Your task to perform on an android device: open app "Spotify" (install if not already installed) and enter user name: "infallible@icloud.com" and password: "implored" Image 0: 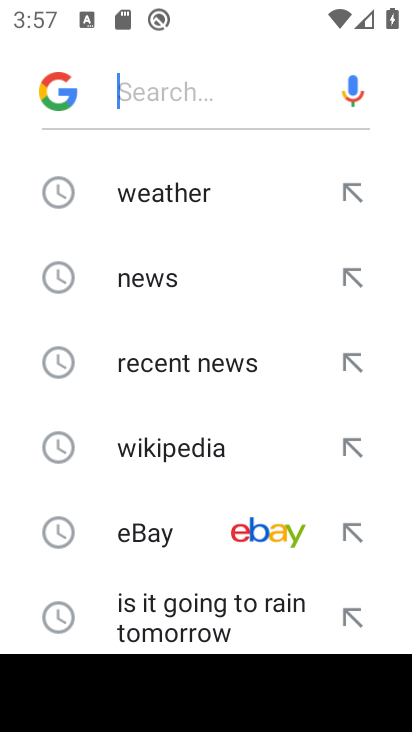
Step 0: press home button
Your task to perform on an android device: open app "Spotify" (install if not already installed) and enter user name: "infallible@icloud.com" and password: "implored" Image 1: 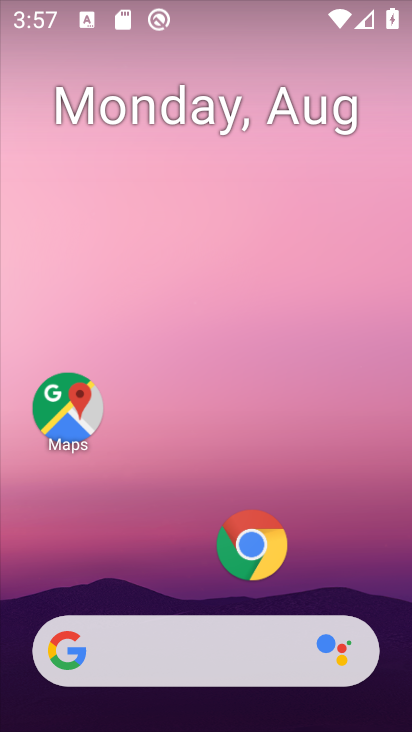
Step 1: drag from (136, 547) to (228, 8)
Your task to perform on an android device: open app "Spotify" (install if not already installed) and enter user name: "infallible@icloud.com" and password: "implored" Image 2: 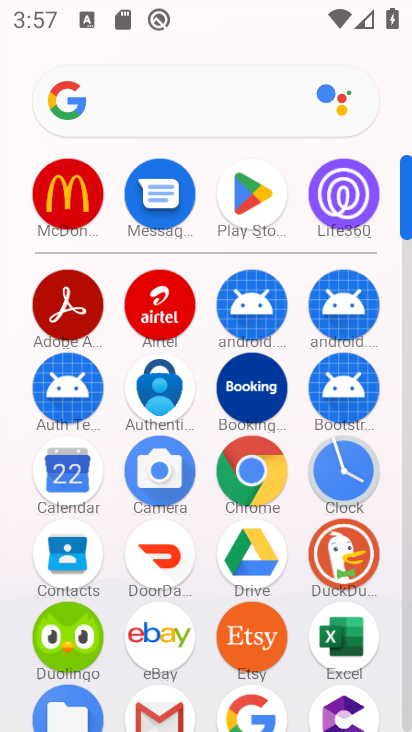
Step 2: click (232, 194)
Your task to perform on an android device: open app "Spotify" (install if not already installed) and enter user name: "infallible@icloud.com" and password: "implored" Image 3: 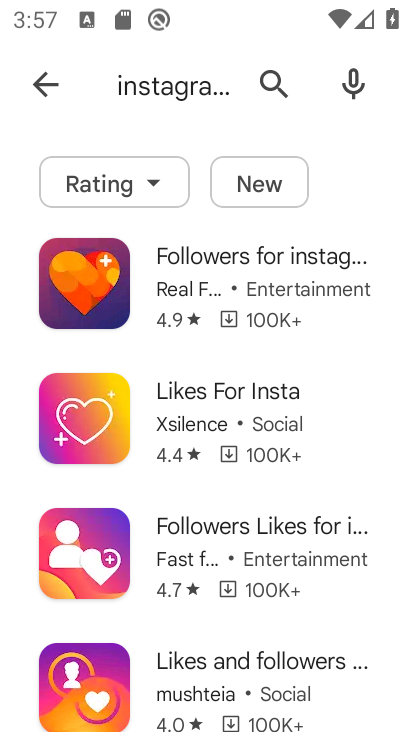
Step 3: click (285, 78)
Your task to perform on an android device: open app "Spotify" (install if not already installed) and enter user name: "infallible@icloud.com" and password: "implored" Image 4: 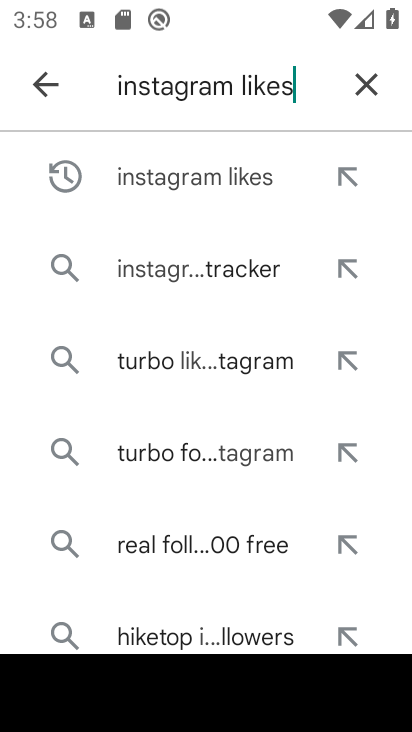
Step 4: click (359, 77)
Your task to perform on an android device: open app "Spotify" (install if not already installed) and enter user name: "infallible@icloud.com" and password: "implored" Image 5: 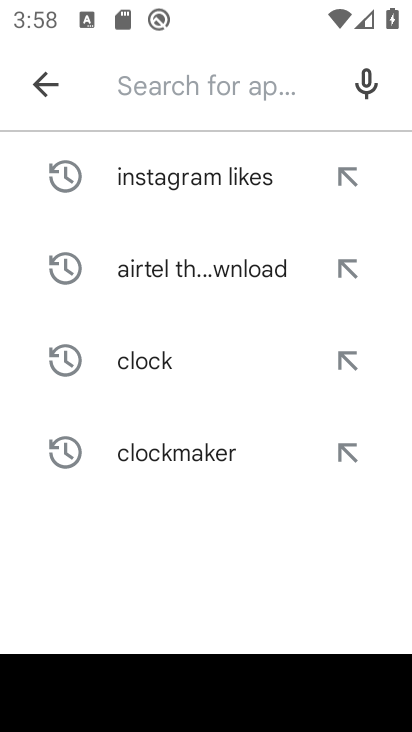
Step 5: click (203, 71)
Your task to perform on an android device: open app "Spotify" (install if not already installed) and enter user name: "infallible@icloud.com" and password: "implored" Image 6: 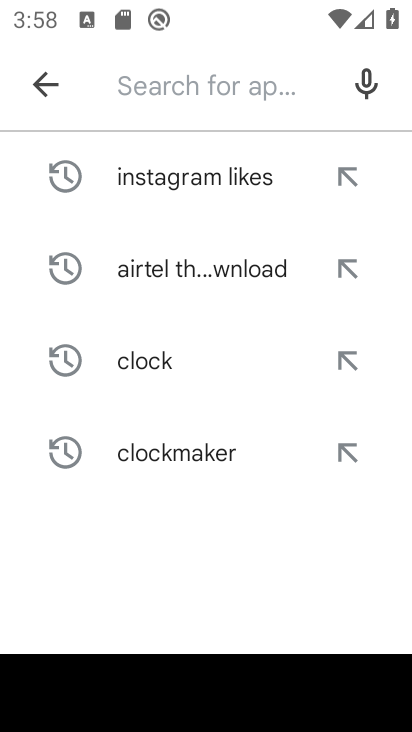
Step 6: type "Spotify"
Your task to perform on an android device: open app "Spotify" (install if not already installed) and enter user name: "infallible@icloud.com" and password: "implored" Image 7: 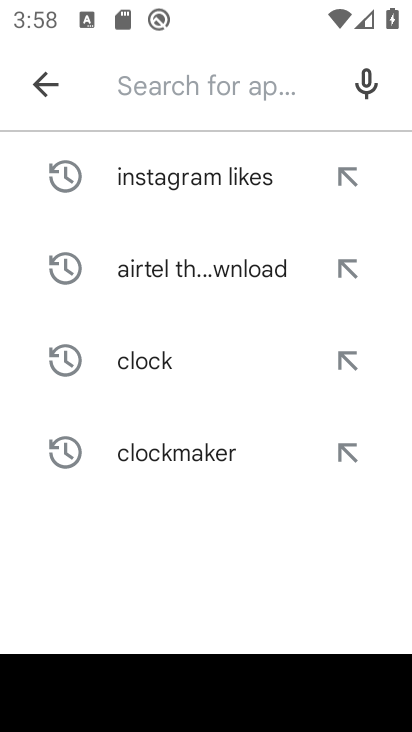
Step 7: click (114, 572)
Your task to perform on an android device: open app "Spotify" (install if not already installed) and enter user name: "infallible@icloud.com" and password: "implored" Image 8: 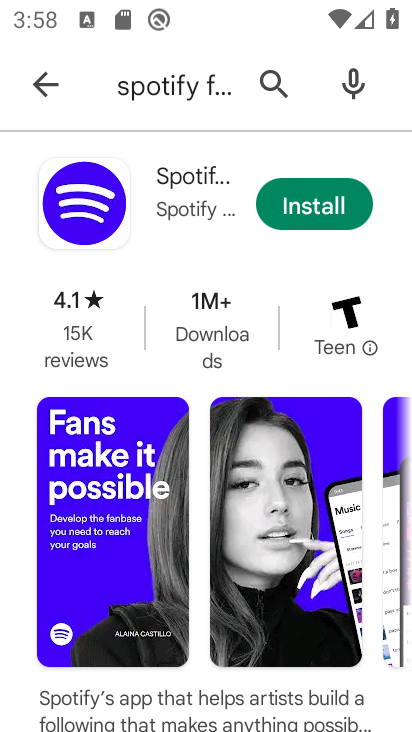
Step 8: click (265, 79)
Your task to perform on an android device: open app "Spotify" (install if not already installed) and enter user name: "infallible@icloud.com" and password: "implored" Image 9: 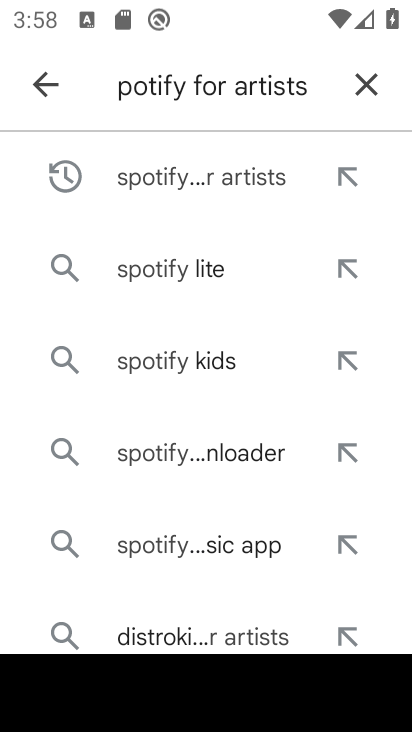
Step 9: click (367, 81)
Your task to perform on an android device: open app "Spotify" (install if not already installed) and enter user name: "infallible@icloud.com" and password: "implored" Image 10: 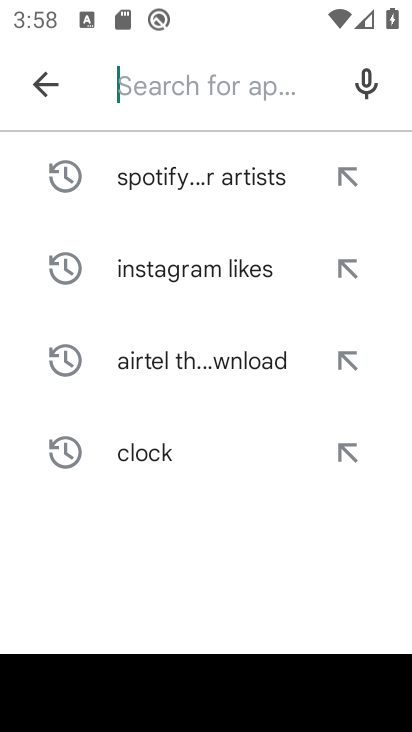
Step 10: click (183, 83)
Your task to perform on an android device: open app "Spotify" (install if not already installed) and enter user name: "infallible@icloud.com" and password: "implored" Image 11: 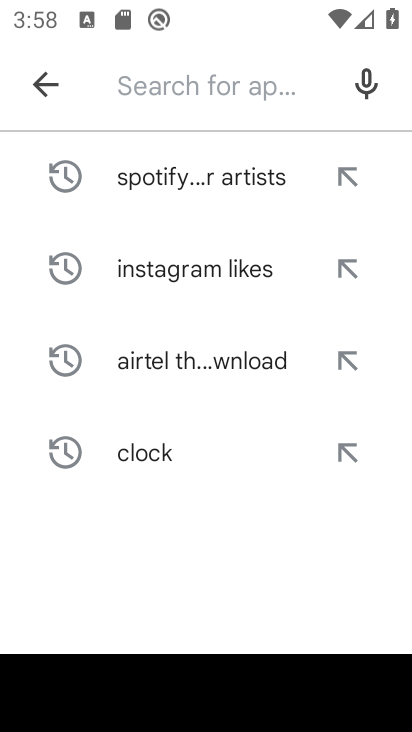
Step 11: click (183, 83)
Your task to perform on an android device: open app "Spotify" (install if not already installed) and enter user name: "infallible@icloud.com" and password: "implored" Image 12: 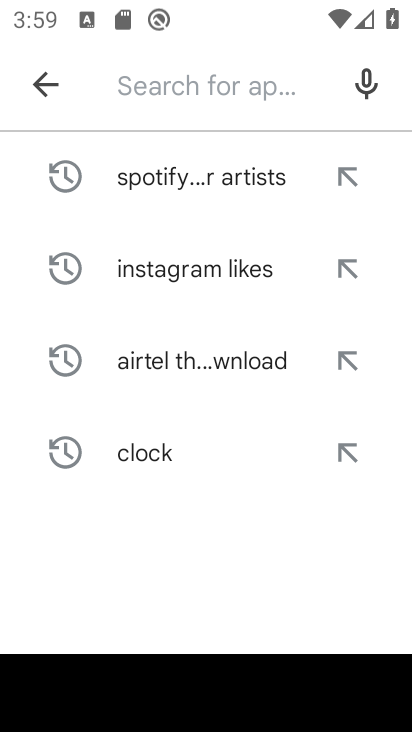
Step 12: type "Spotify"
Your task to perform on an android device: open app "Spotify" (install if not already installed) and enter user name: "infallible@icloud.com" and password: "implored" Image 13: 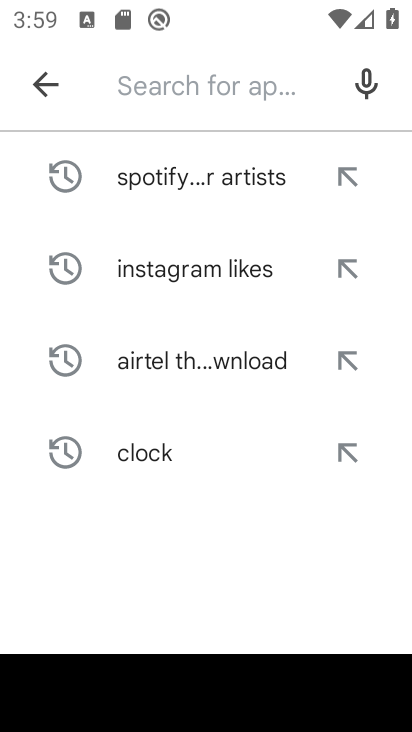
Step 13: click (176, 592)
Your task to perform on an android device: open app "Spotify" (install if not already installed) and enter user name: "infallible@icloud.com" and password: "implored" Image 14: 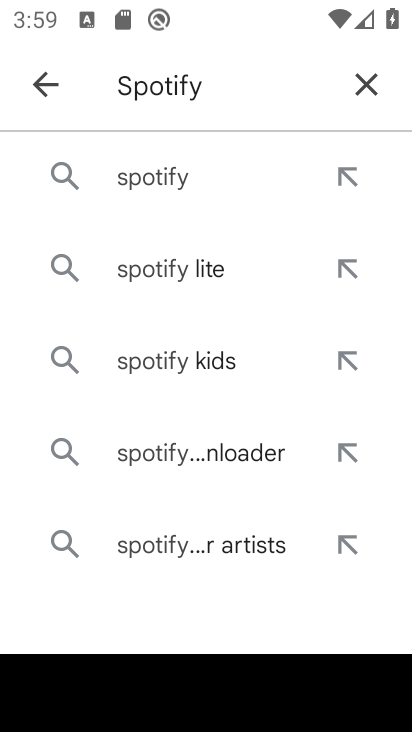
Step 14: click (180, 180)
Your task to perform on an android device: open app "Spotify" (install if not already installed) and enter user name: "infallible@icloud.com" and password: "implored" Image 15: 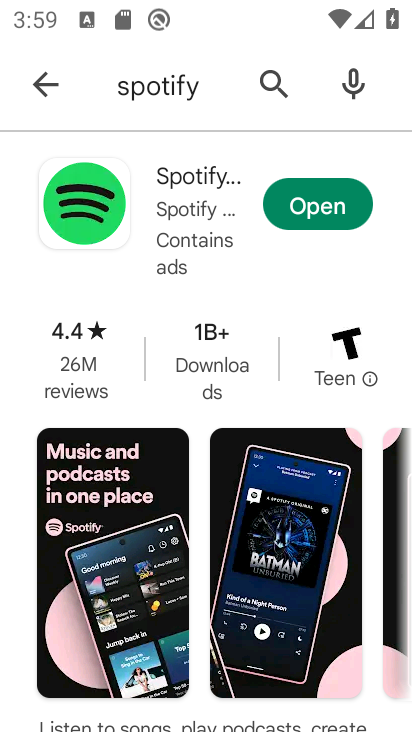
Step 15: click (319, 205)
Your task to perform on an android device: open app "Spotify" (install if not already installed) and enter user name: "infallible@icloud.com" and password: "implored" Image 16: 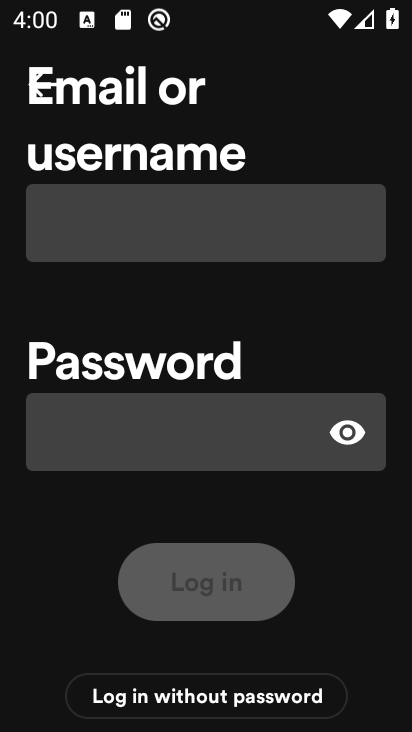
Step 16: click (171, 219)
Your task to perform on an android device: open app "Spotify" (install if not already installed) and enter user name: "infallible@icloud.com" and password: "implored" Image 17: 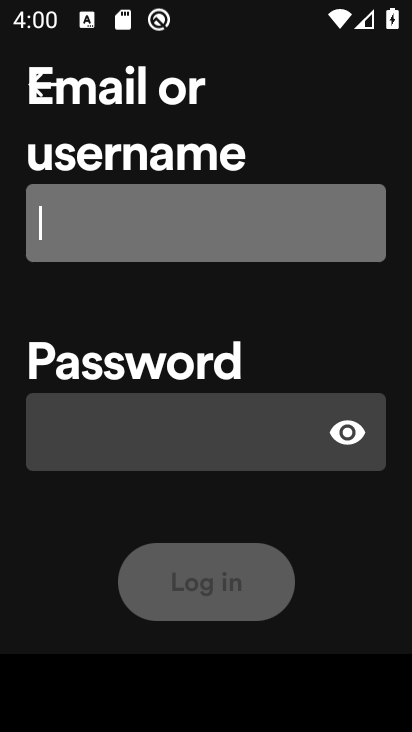
Step 17: type "infallible@icloud.com"
Your task to perform on an android device: open app "Spotify" (install if not already installed) and enter user name: "infallible@icloud.com" and password: "implored" Image 18: 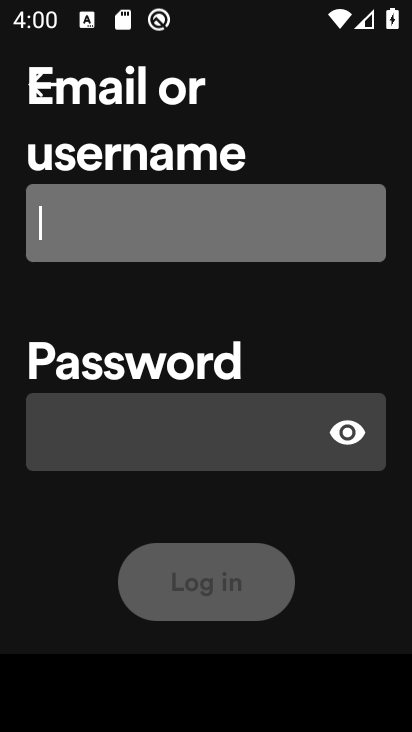
Step 18: click (38, 630)
Your task to perform on an android device: open app "Spotify" (install if not already installed) and enter user name: "infallible@icloud.com" and password: "implored" Image 19: 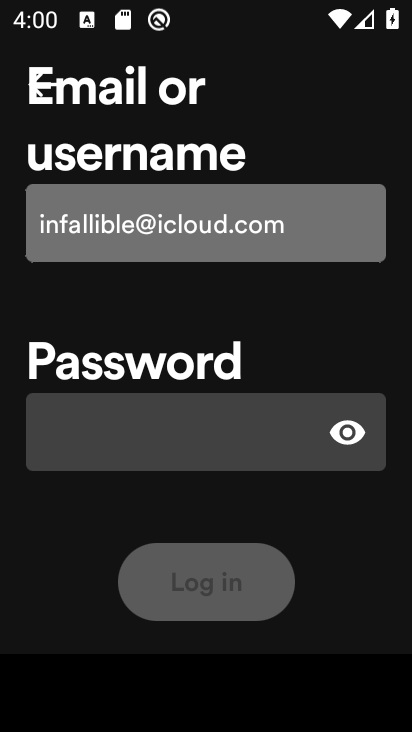
Step 19: click (149, 449)
Your task to perform on an android device: open app "Spotify" (install if not already installed) and enter user name: "infallible@icloud.com" and password: "implored" Image 20: 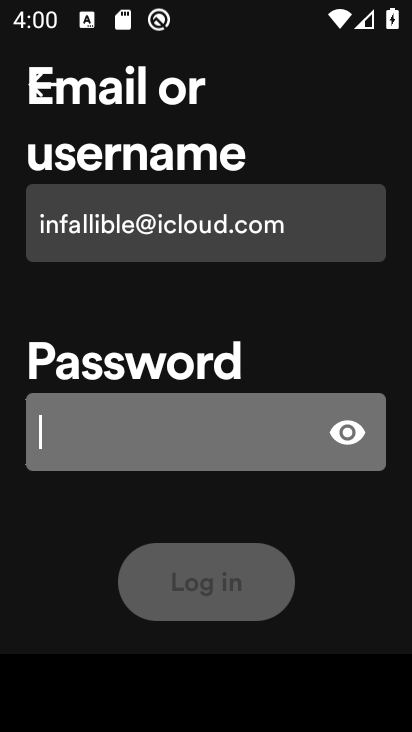
Step 20: click (207, 418)
Your task to perform on an android device: open app "Spotify" (install if not already installed) and enter user name: "infallible@icloud.com" and password: "implored" Image 21: 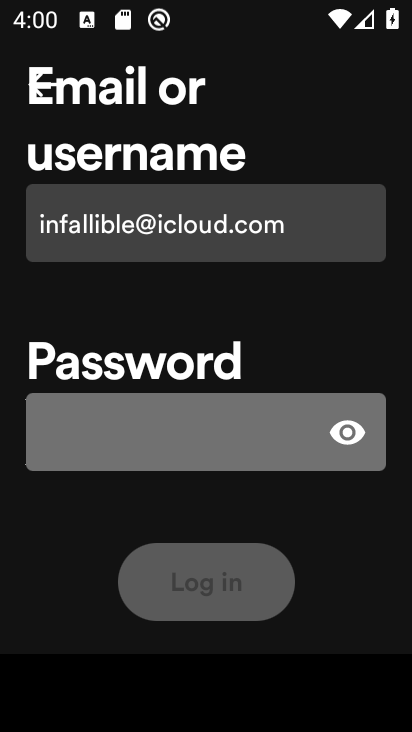
Step 21: type "implored"
Your task to perform on an android device: open app "Spotify" (install if not already installed) and enter user name: "infallible@icloud.com" and password: "implored" Image 22: 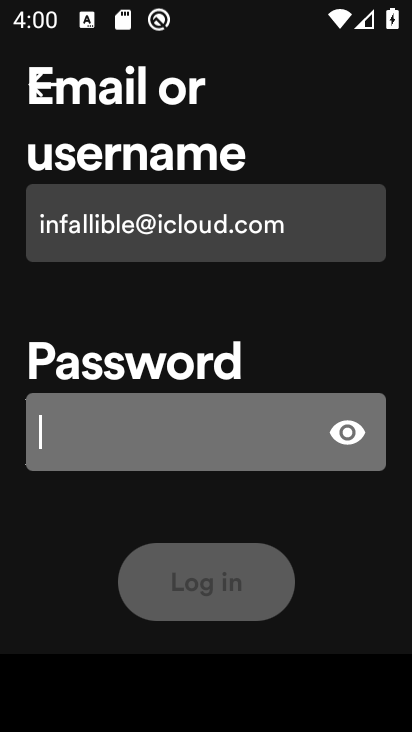
Step 22: click (45, 623)
Your task to perform on an android device: open app "Spotify" (install if not already installed) and enter user name: "infallible@icloud.com" and password: "implored" Image 23: 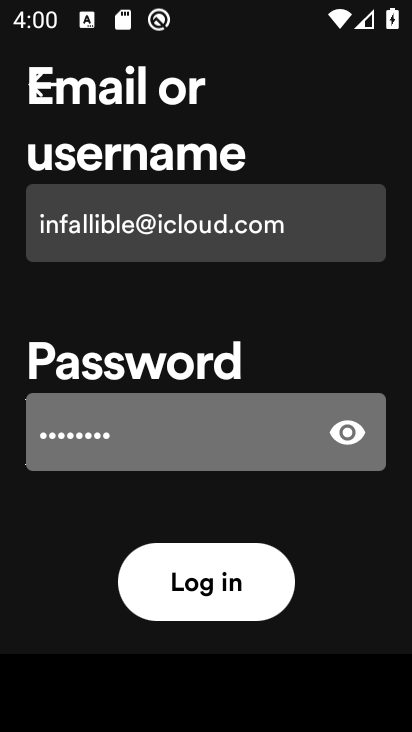
Step 23: task complete